Your task to perform on an android device: Open the map Image 0: 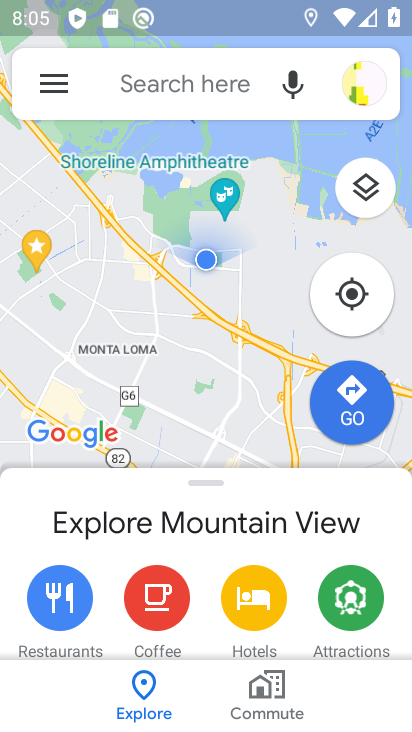
Step 0: task complete